Your task to perform on an android device: Add "apple airpods" to the cart on newegg.com Image 0: 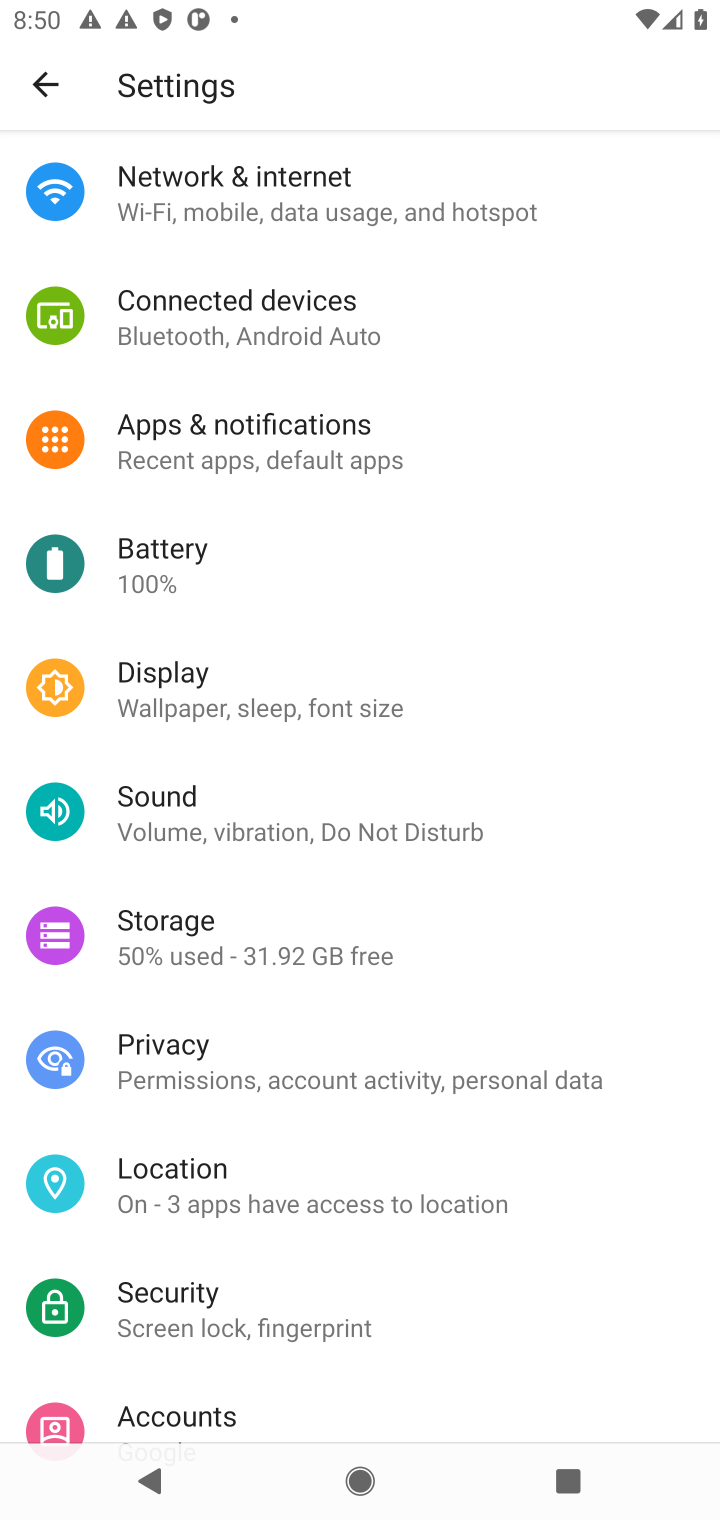
Step 0: press home button
Your task to perform on an android device: Add "apple airpods" to the cart on newegg.com Image 1: 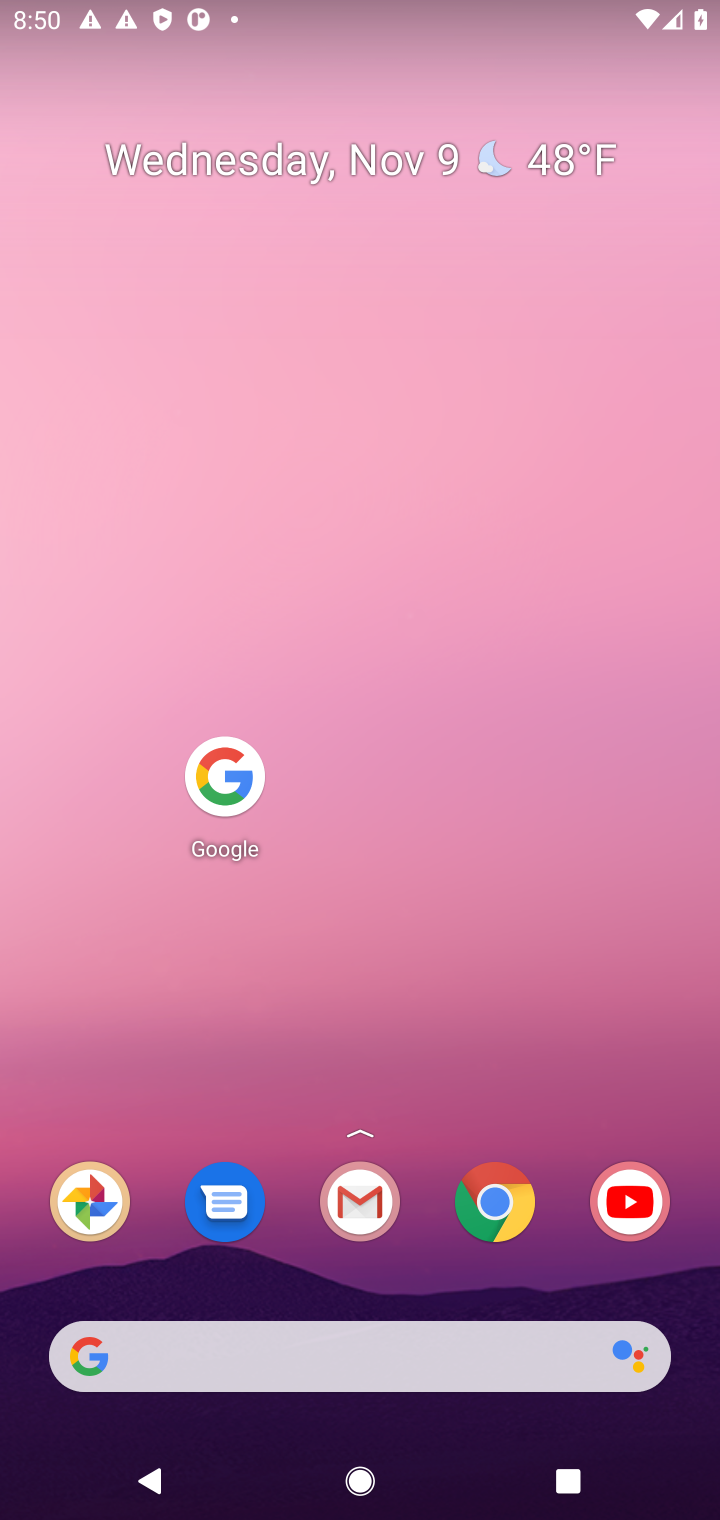
Step 1: click (235, 778)
Your task to perform on an android device: Add "apple airpods" to the cart on newegg.com Image 2: 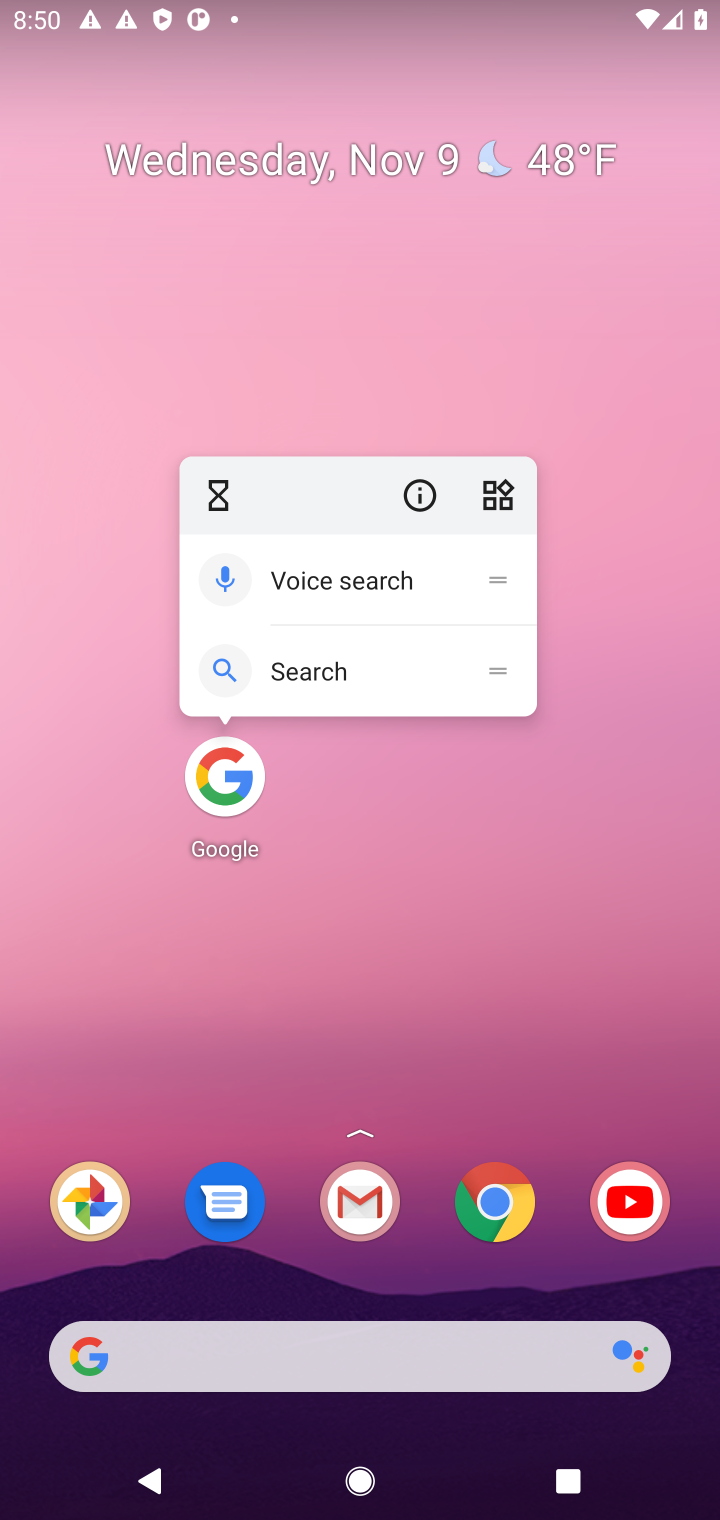
Step 2: click (230, 791)
Your task to perform on an android device: Add "apple airpods" to the cart on newegg.com Image 3: 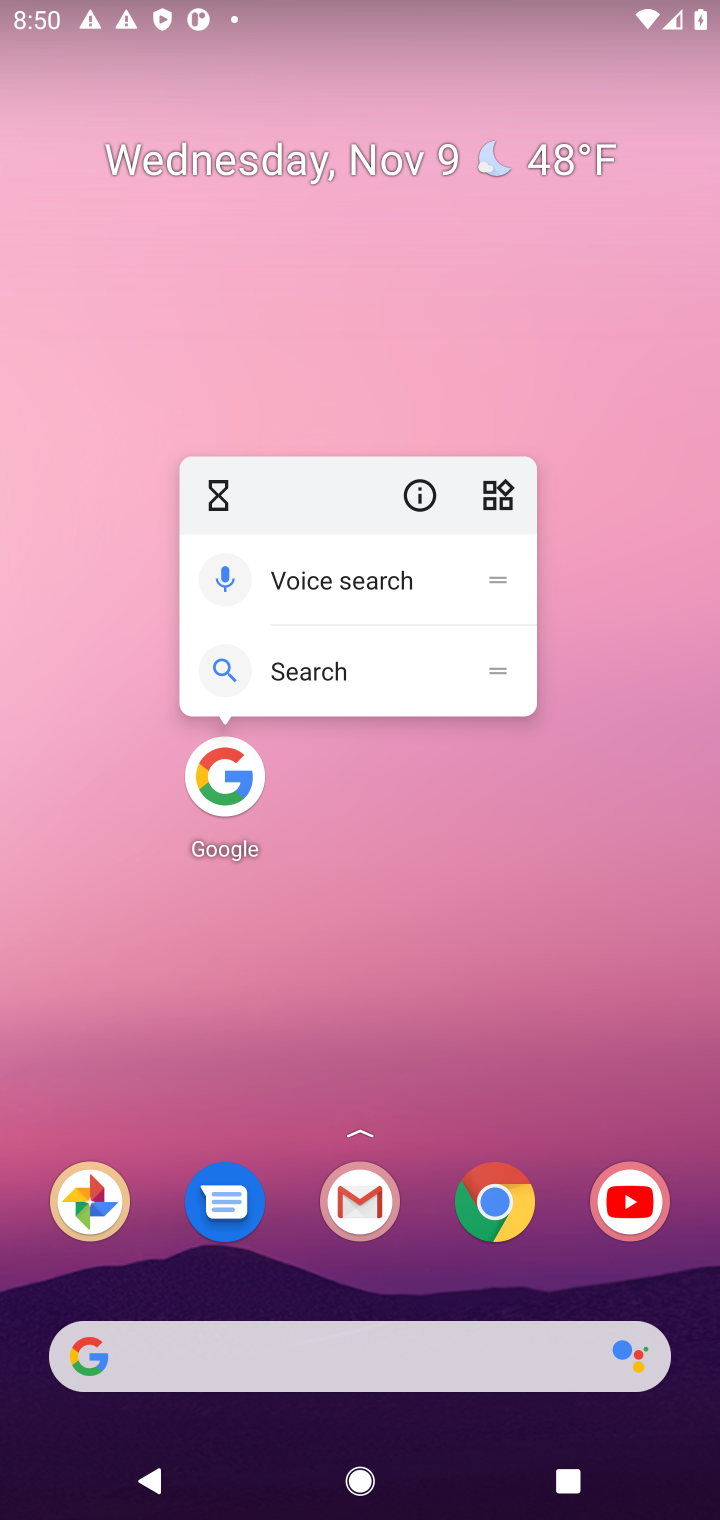
Step 3: click (220, 775)
Your task to perform on an android device: Add "apple airpods" to the cart on newegg.com Image 4: 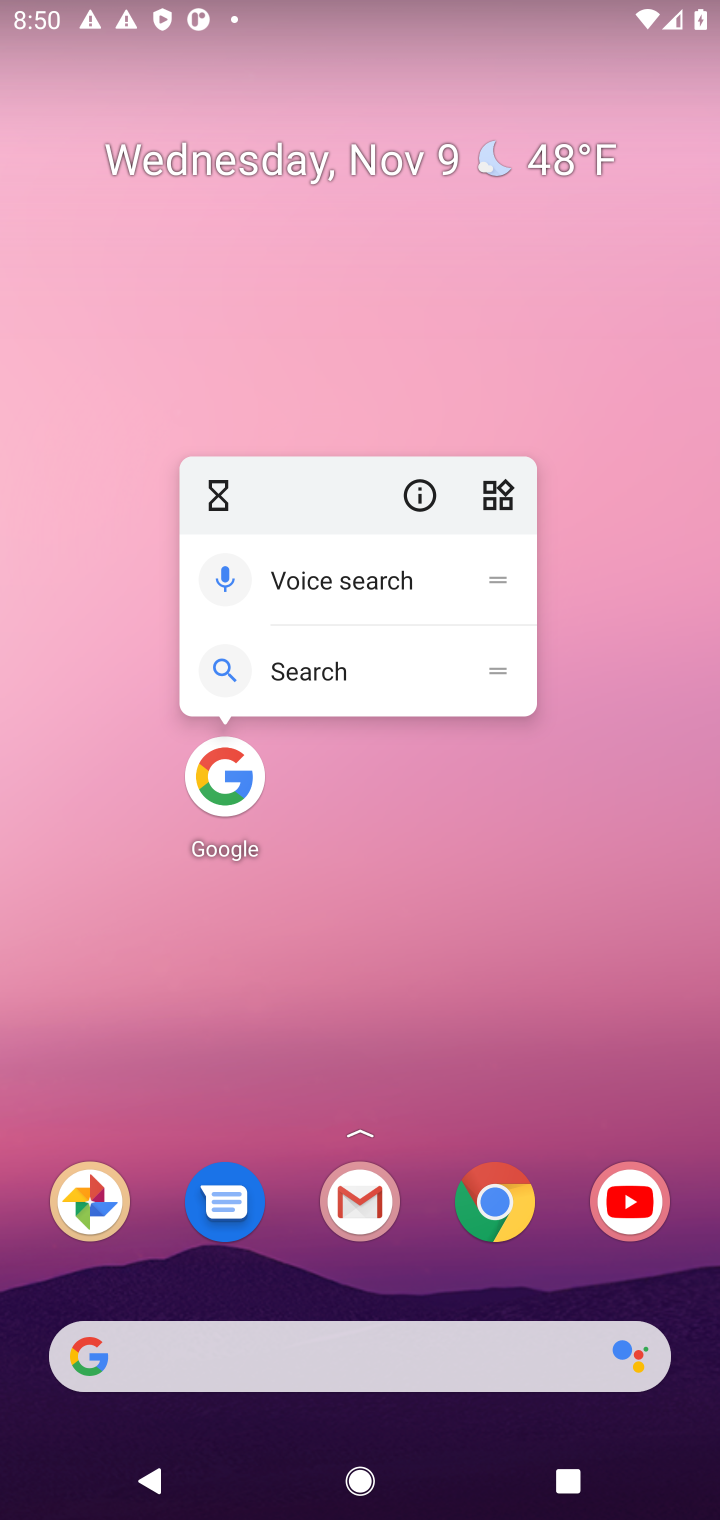
Step 4: click (230, 769)
Your task to perform on an android device: Add "apple airpods" to the cart on newegg.com Image 5: 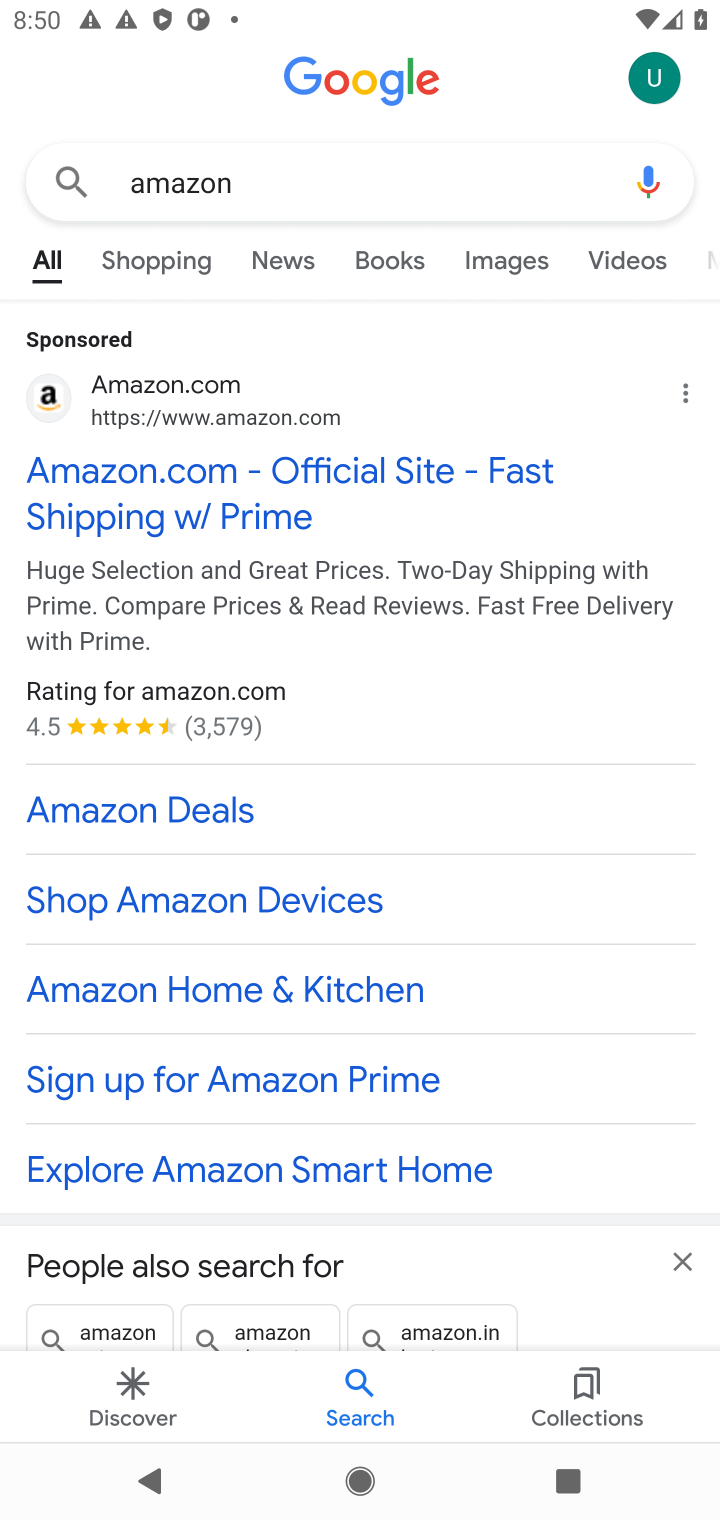
Step 5: click (327, 187)
Your task to perform on an android device: Add "apple airpods" to the cart on newegg.com Image 6: 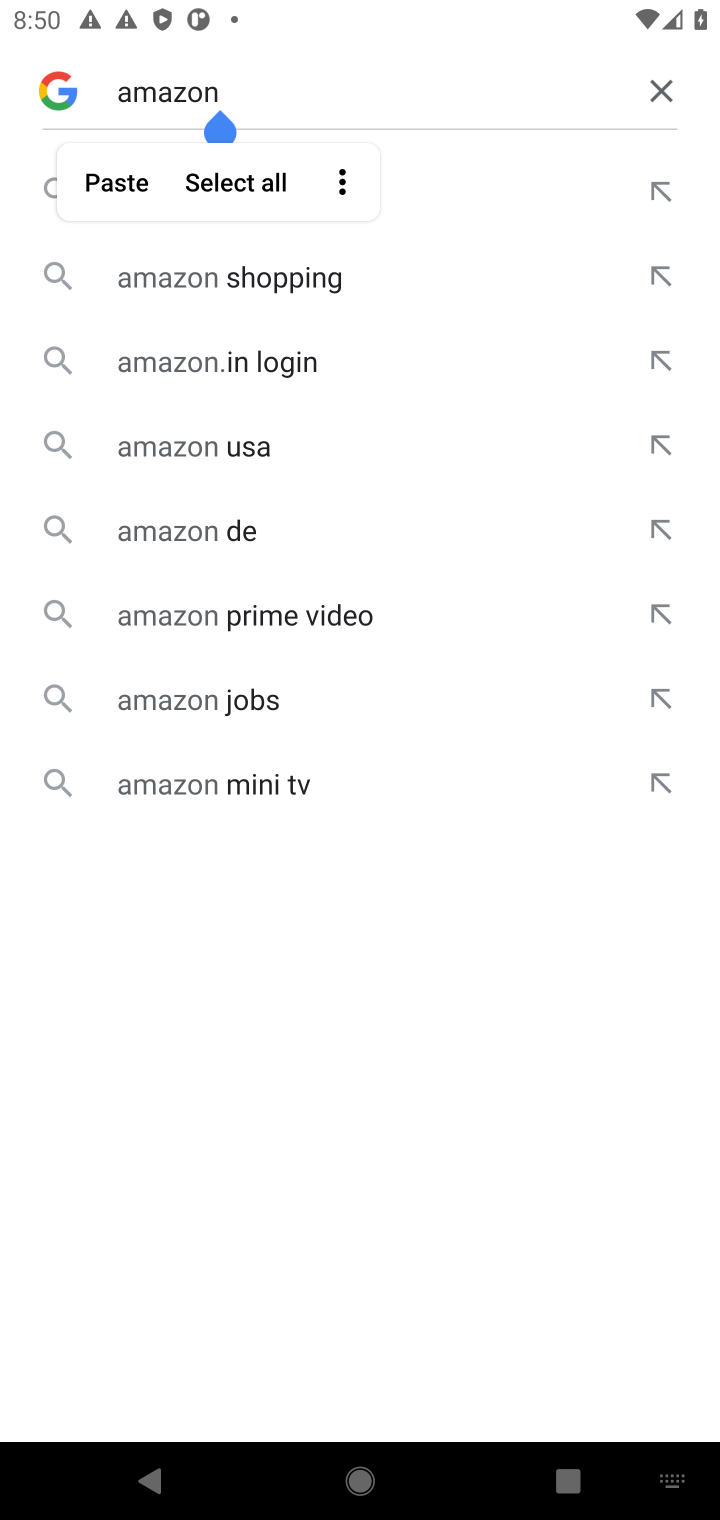
Step 6: click (665, 92)
Your task to perform on an android device: Add "apple airpods" to the cart on newegg.com Image 7: 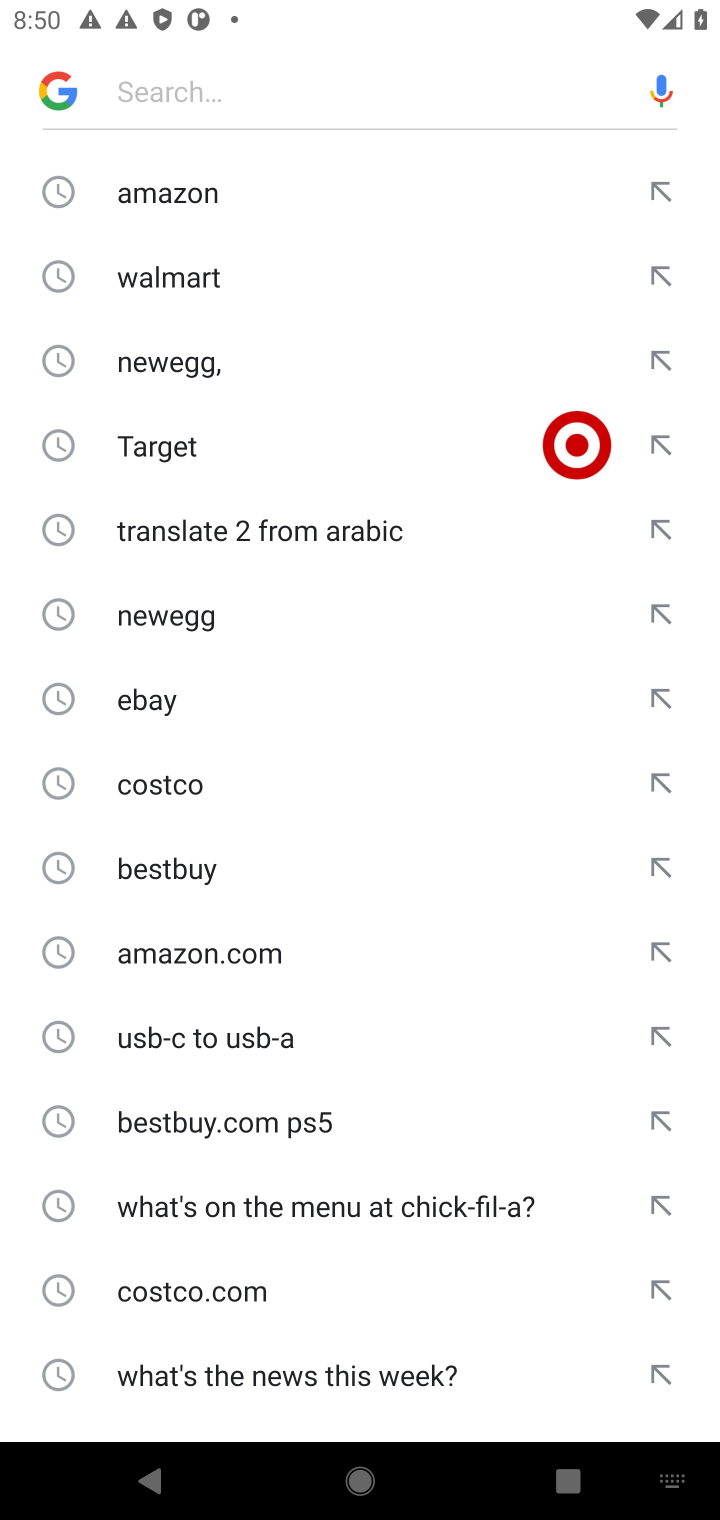
Step 7: click (174, 620)
Your task to perform on an android device: Add "apple airpods" to the cart on newegg.com Image 8: 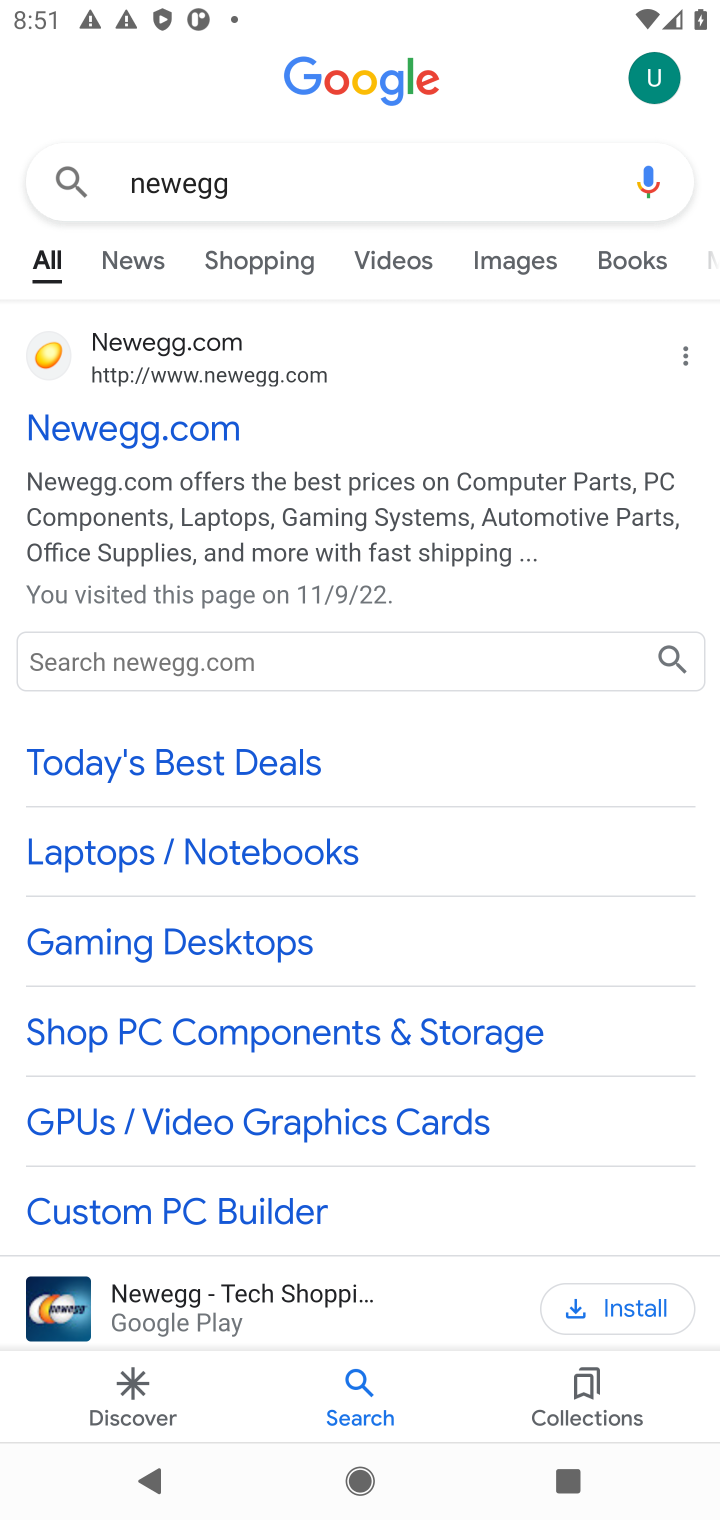
Step 8: click (148, 435)
Your task to perform on an android device: Add "apple airpods" to the cart on newegg.com Image 9: 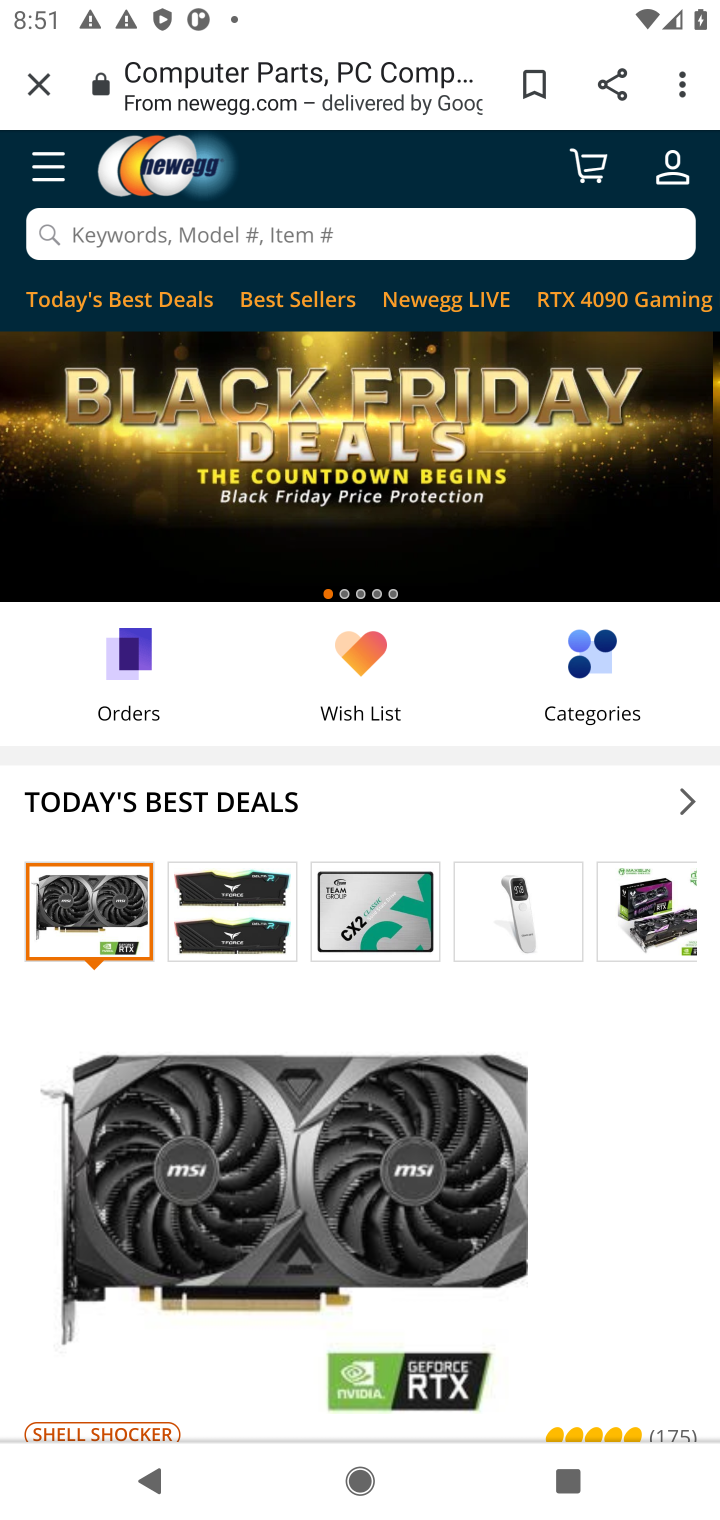
Step 9: click (199, 227)
Your task to perform on an android device: Add "apple airpods" to the cart on newegg.com Image 10: 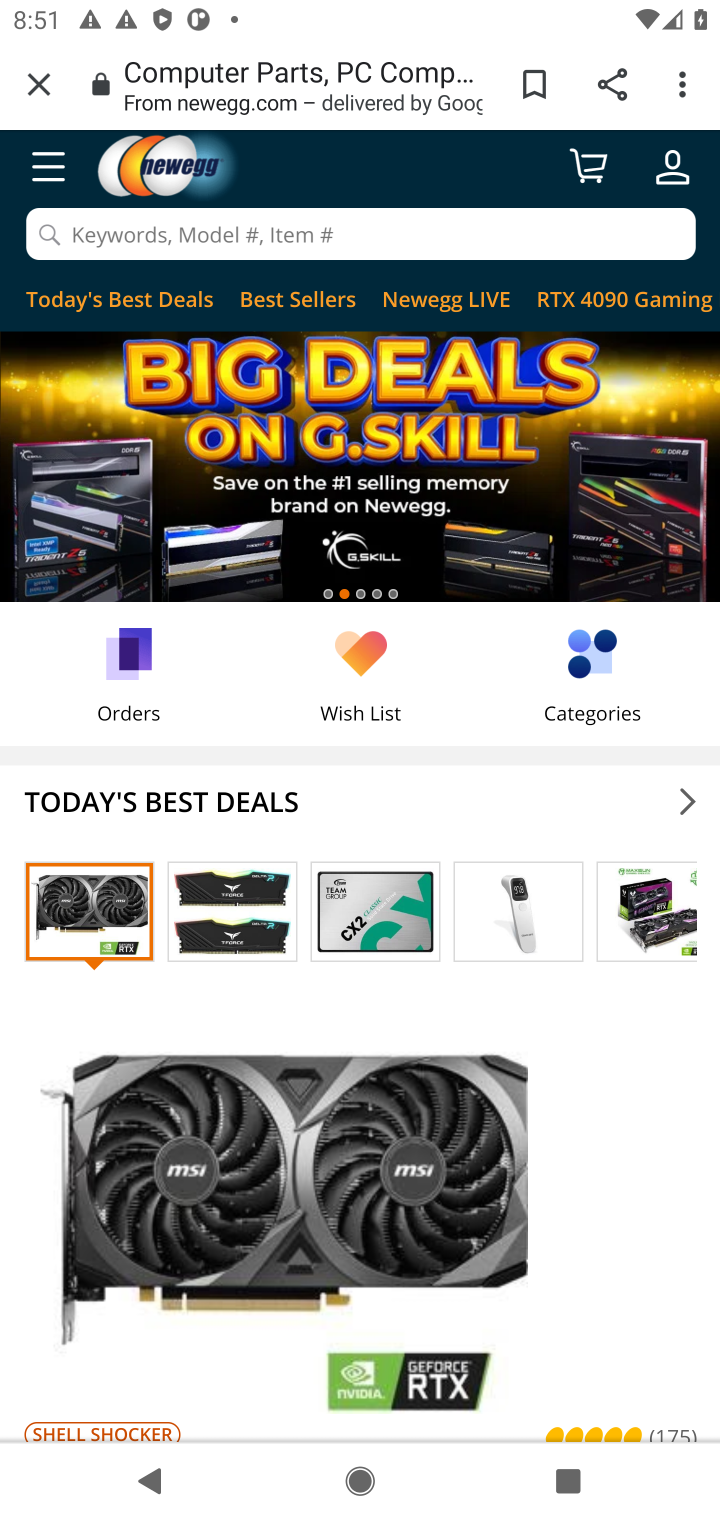
Step 10: click (204, 229)
Your task to perform on an android device: Add "apple airpods" to the cart on newegg.com Image 11: 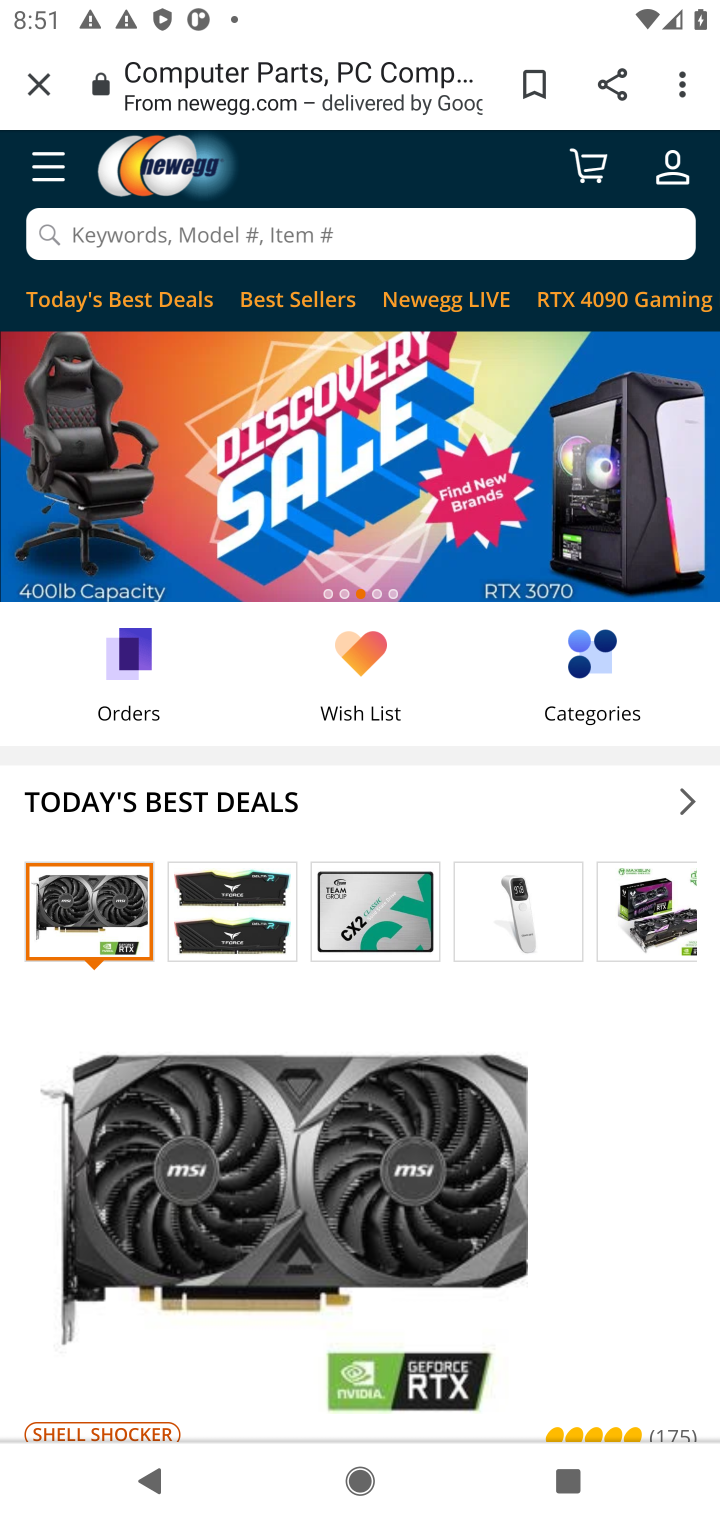
Step 11: click (365, 232)
Your task to perform on an android device: Add "apple airpods" to the cart on newegg.com Image 12: 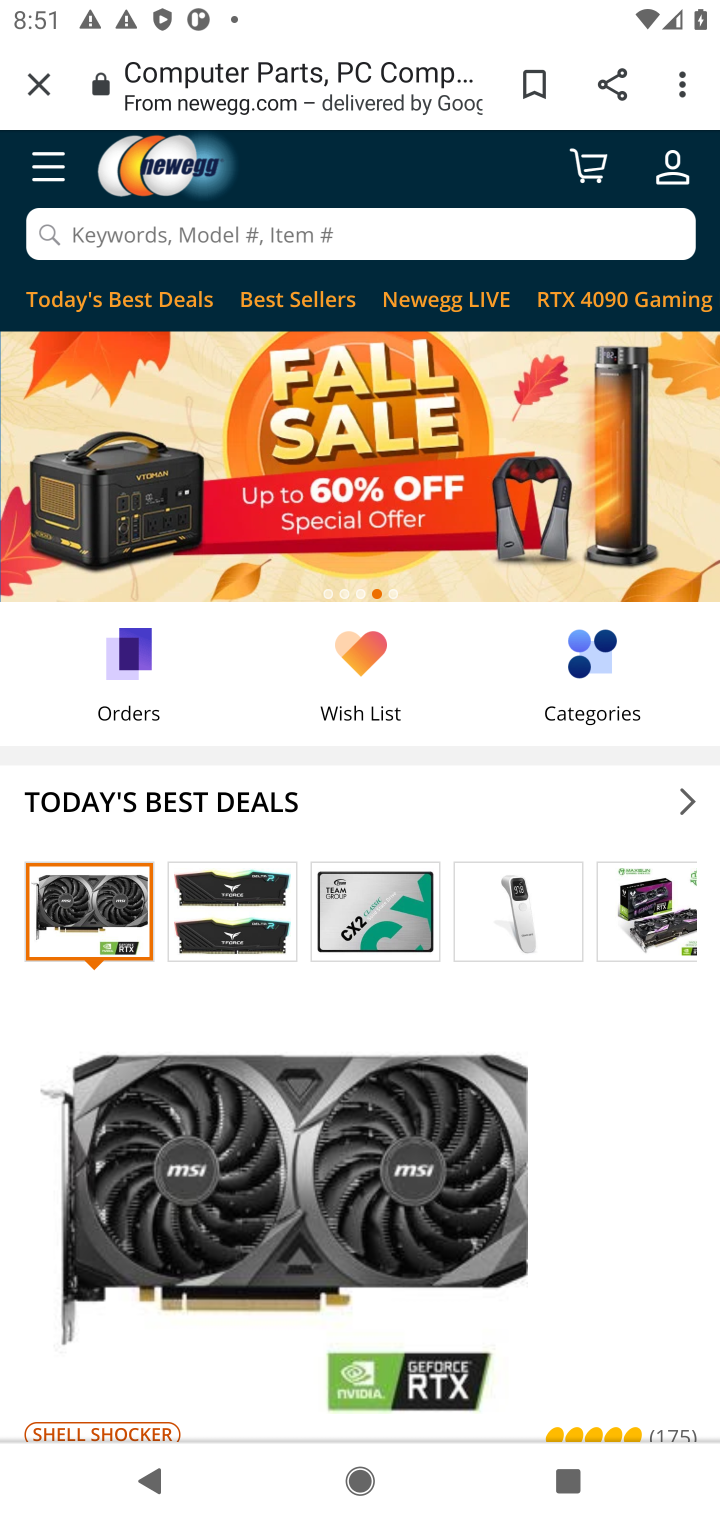
Step 12: click (214, 224)
Your task to perform on an android device: Add "apple airpods" to the cart on newegg.com Image 13: 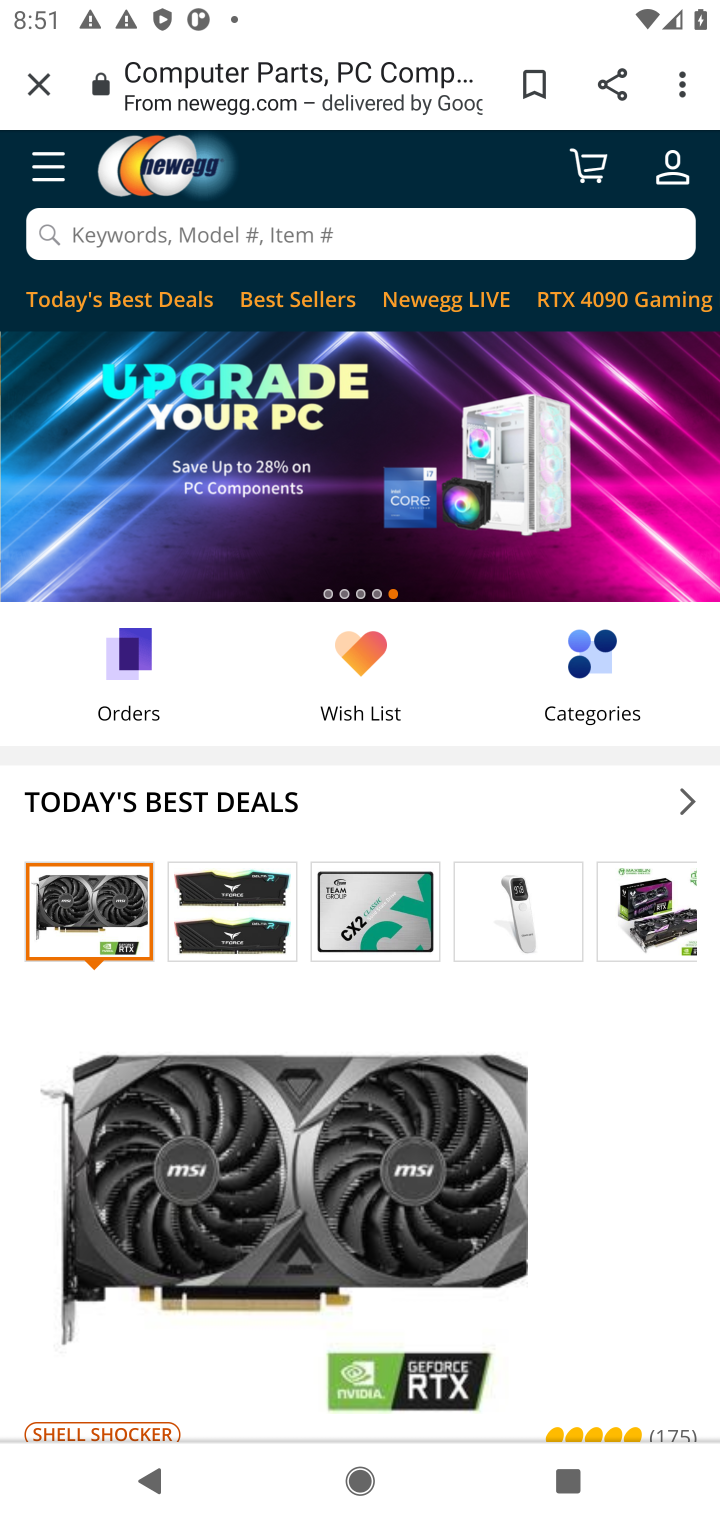
Step 13: click (48, 234)
Your task to perform on an android device: Add "apple airpods" to the cart on newegg.com Image 14: 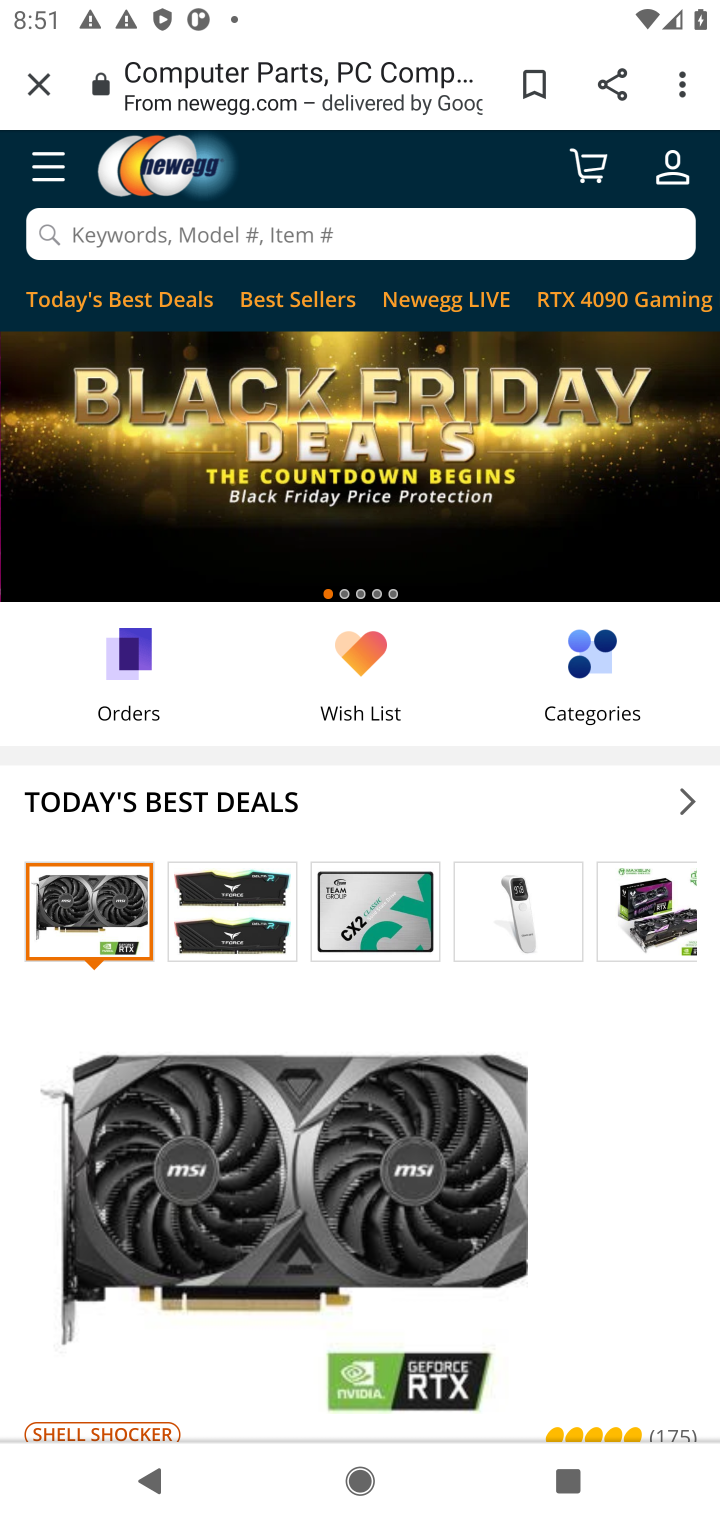
Step 14: click (284, 241)
Your task to perform on an android device: Add "apple airpods" to the cart on newegg.com Image 15: 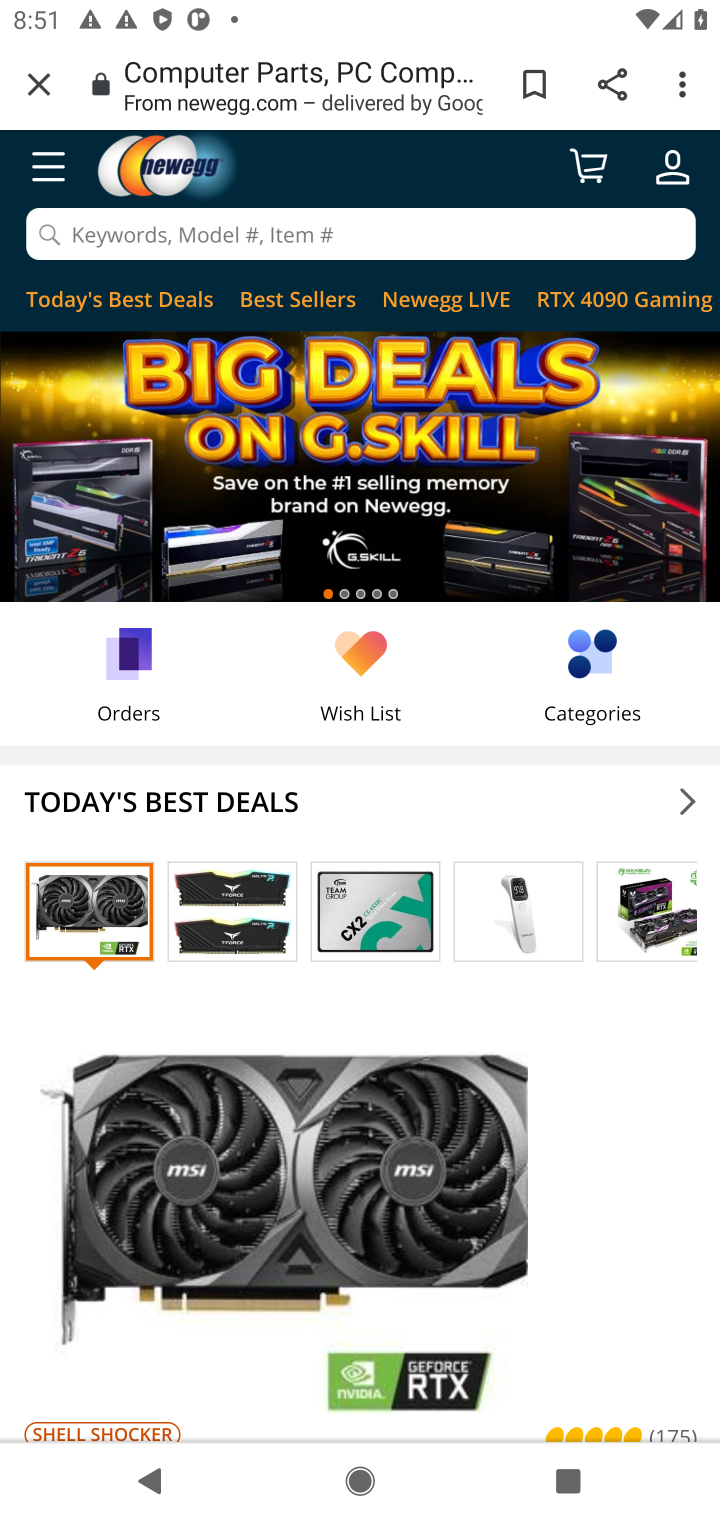
Step 15: click (363, 223)
Your task to perform on an android device: Add "apple airpods" to the cart on newegg.com Image 16: 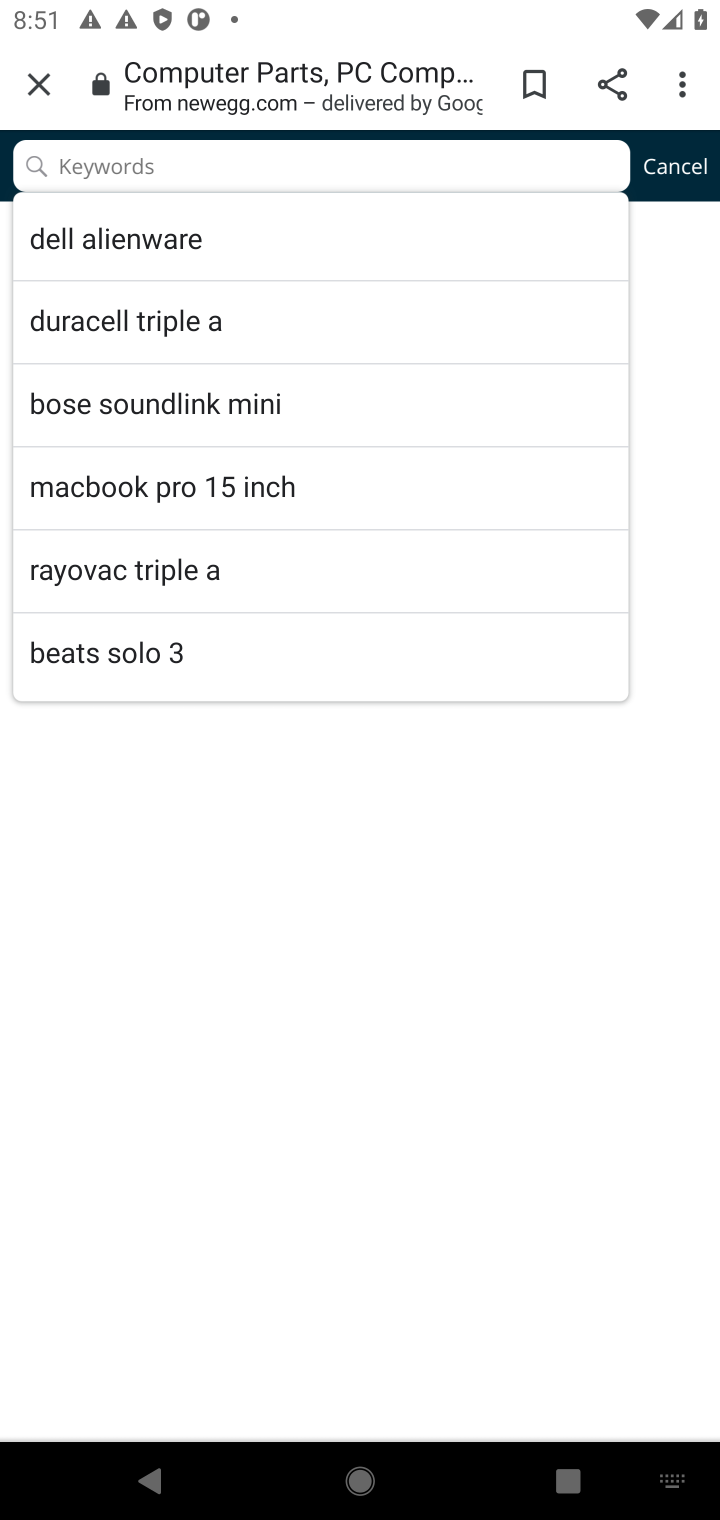
Step 16: type "apple airpods"
Your task to perform on an android device: Add "apple airpods" to the cart on newegg.com Image 17: 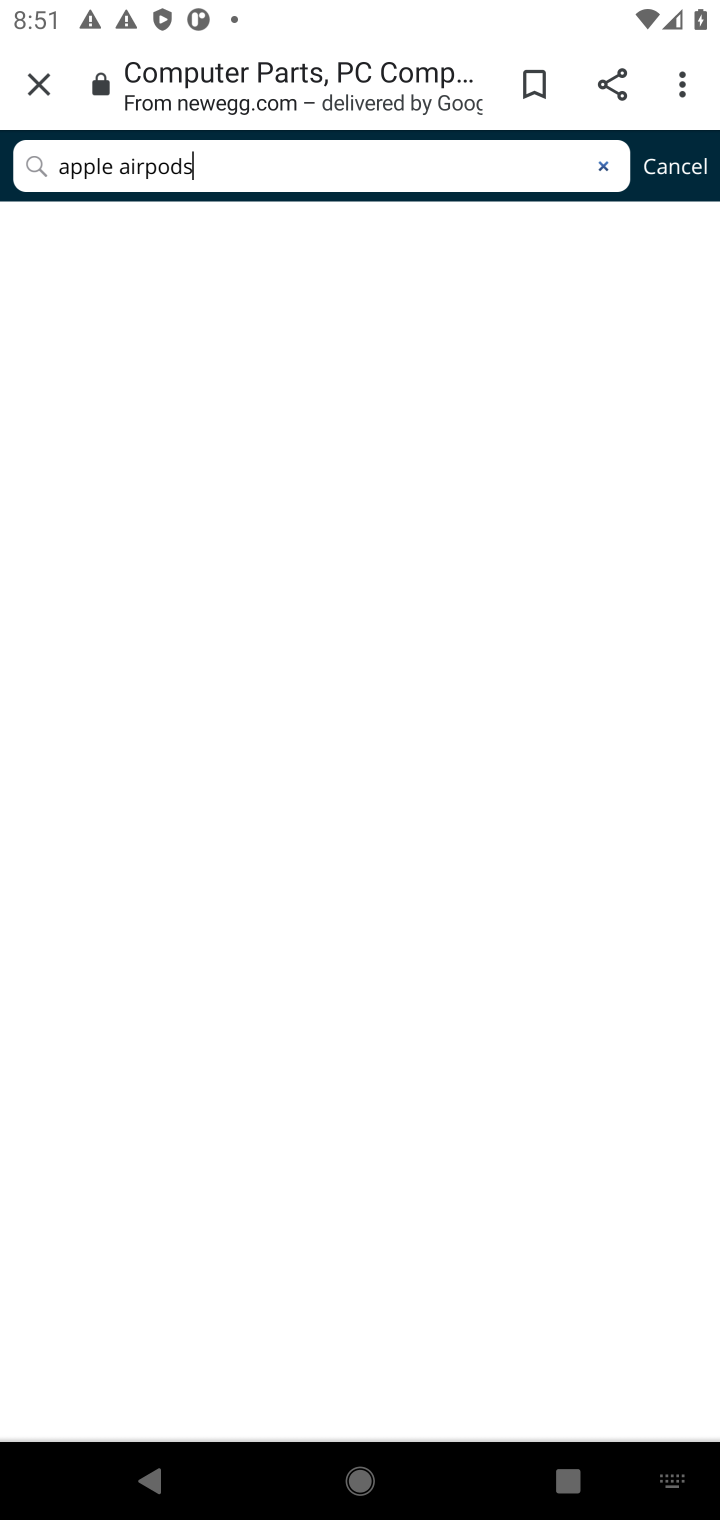
Step 17: press enter
Your task to perform on an android device: Add "apple airpods" to the cart on newegg.com Image 18: 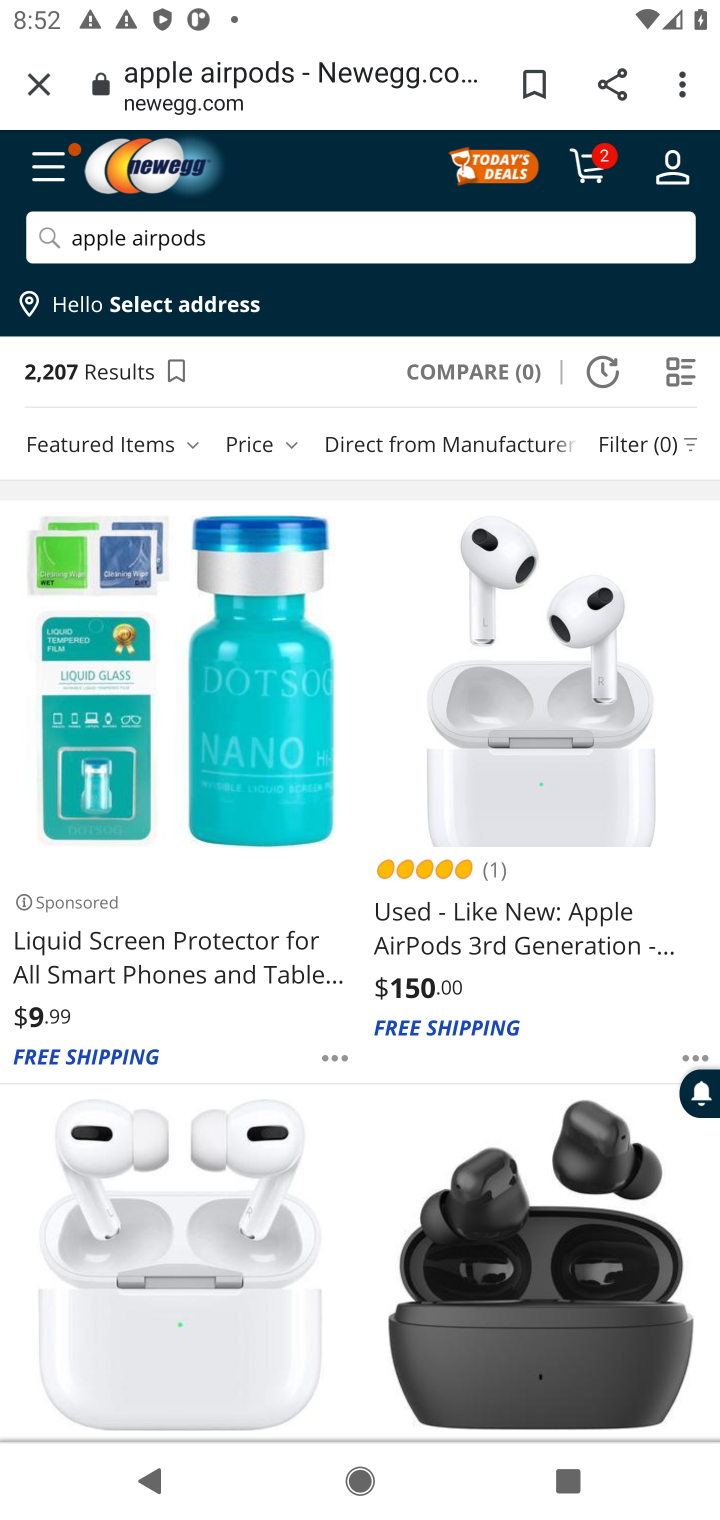
Step 18: drag from (456, 970) to (492, 831)
Your task to perform on an android device: Add "apple airpods" to the cart on newegg.com Image 19: 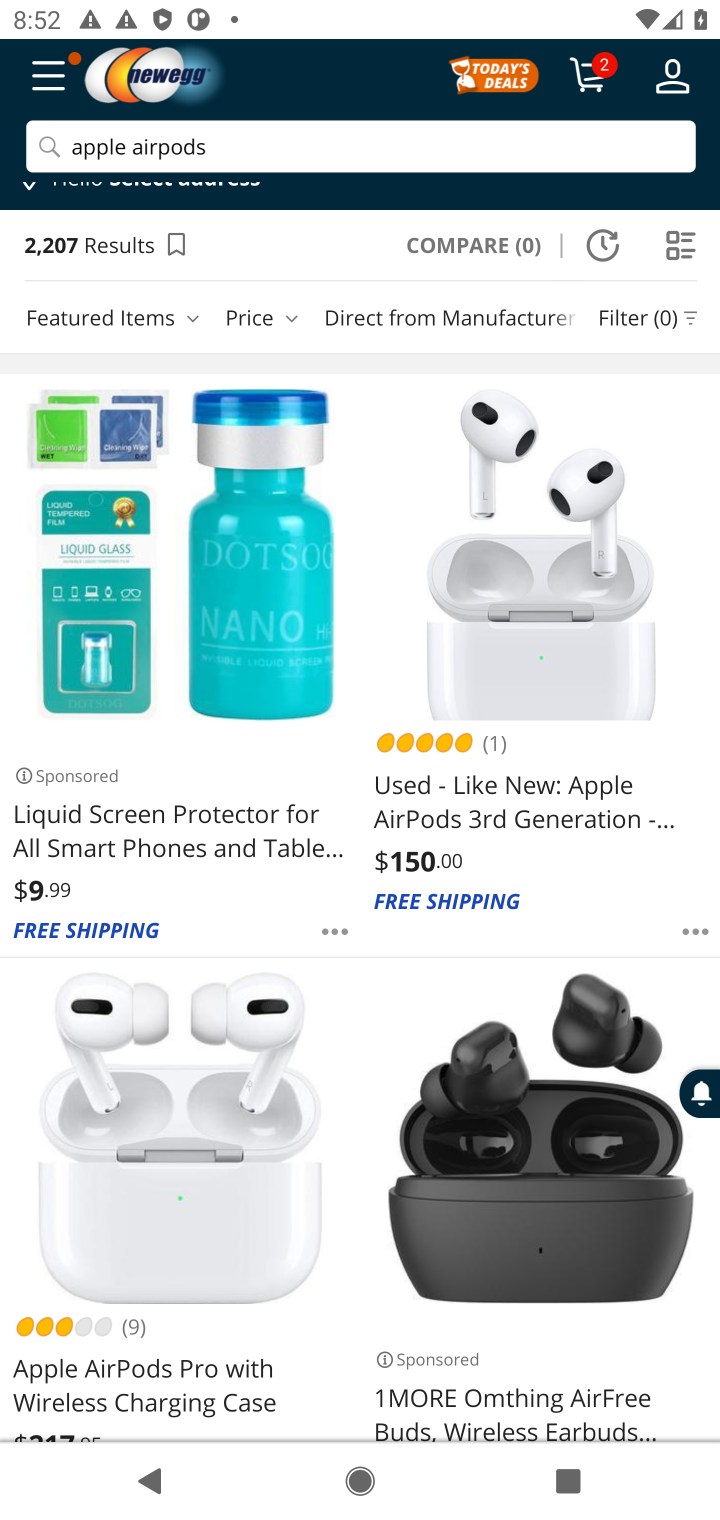
Step 19: drag from (194, 1288) to (276, 1104)
Your task to perform on an android device: Add "apple airpods" to the cart on newegg.com Image 20: 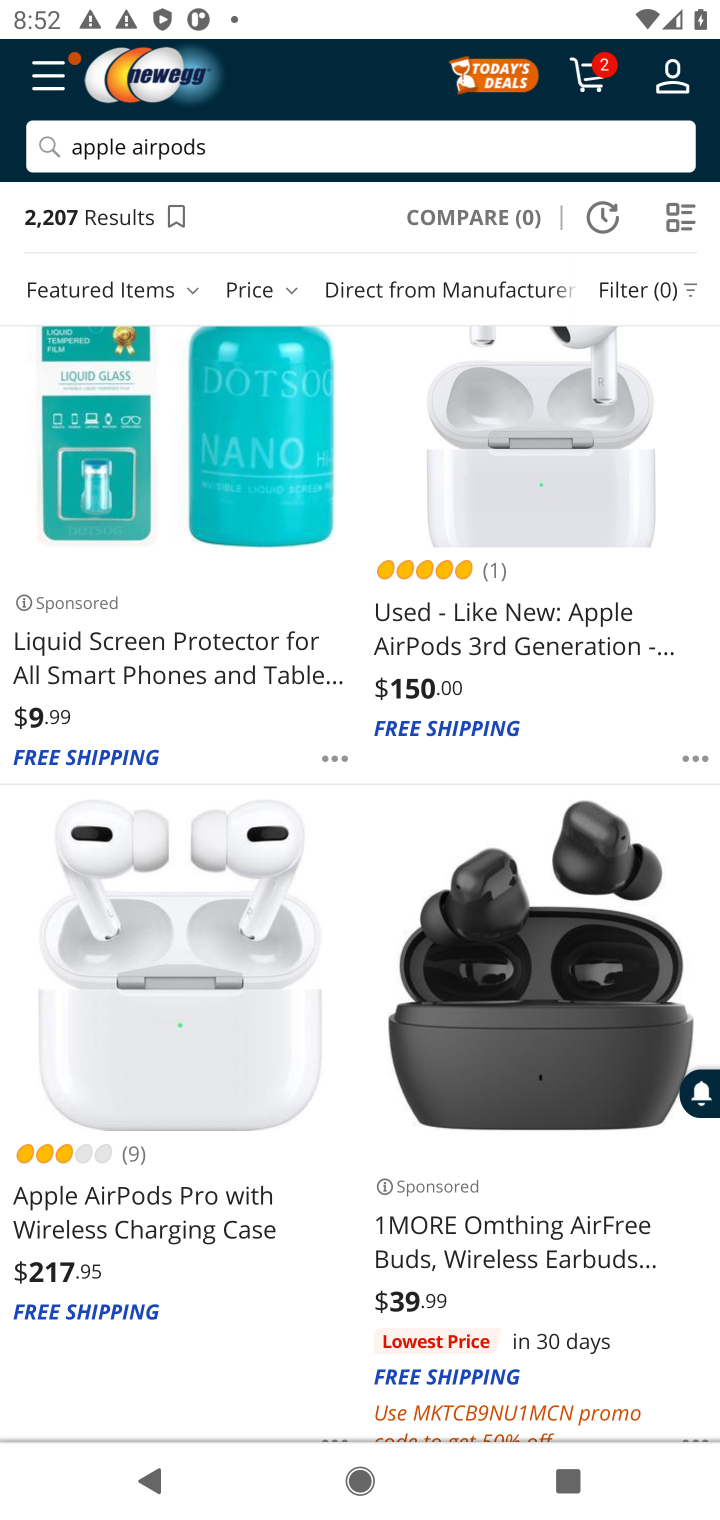
Step 20: click (488, 621)
Your task to perform on an android device: Add "apple airpods" to the cart on newegg.com Image 21: 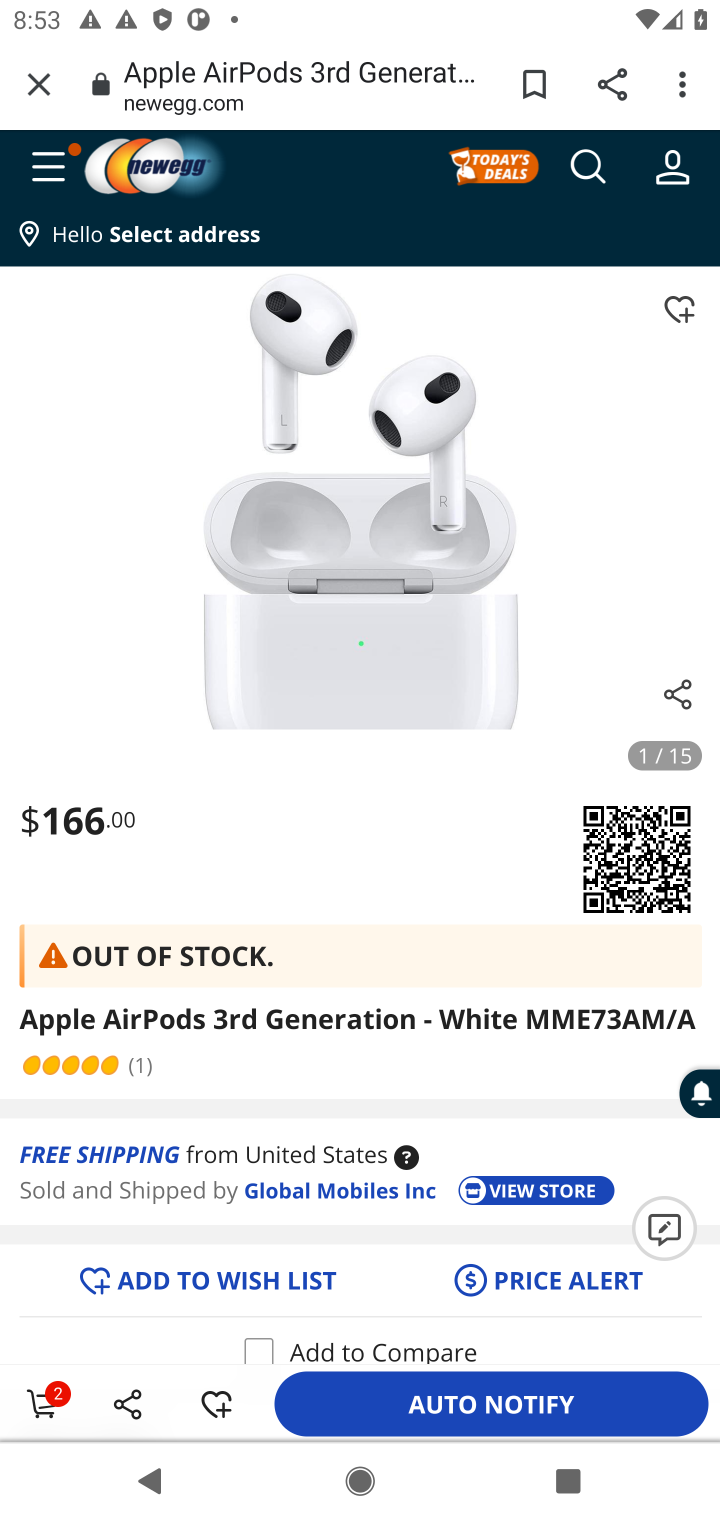
Step 21: task complete